Your task to perform on an android device: Open Google Chrome and open the bookmarks view Image 0: 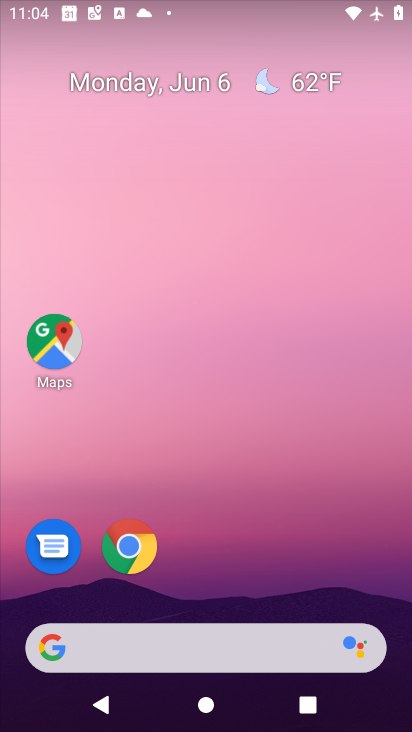
Step 0: click (130, 549)
Your task to perform on an android device: Open Google Chrome and open the bookmarks view Image 1: 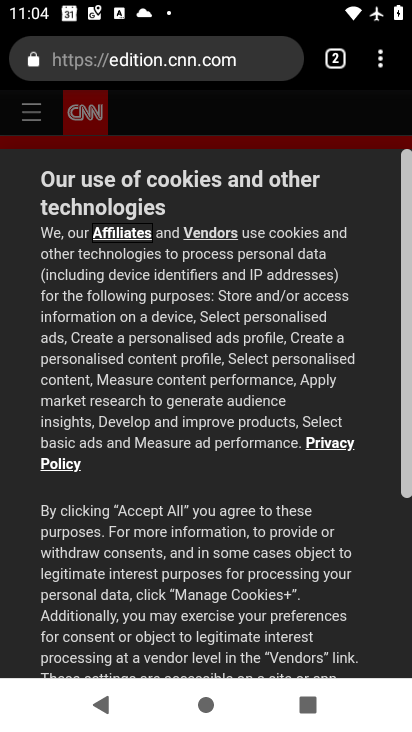
Step 1: click (382, 65)
Your task to perform on an android device: Open Google Chrome and open the bookmarks view Image 2: 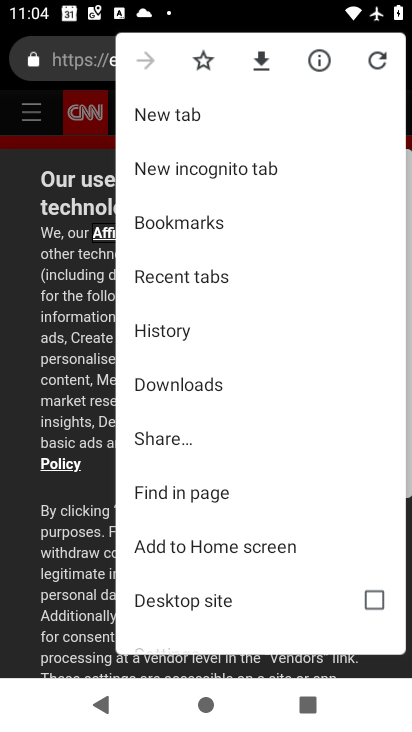
Step 2: click (170, 219)
Your task to perform on an android device: Open Google Chrome and open the bookmarks view Image 3: 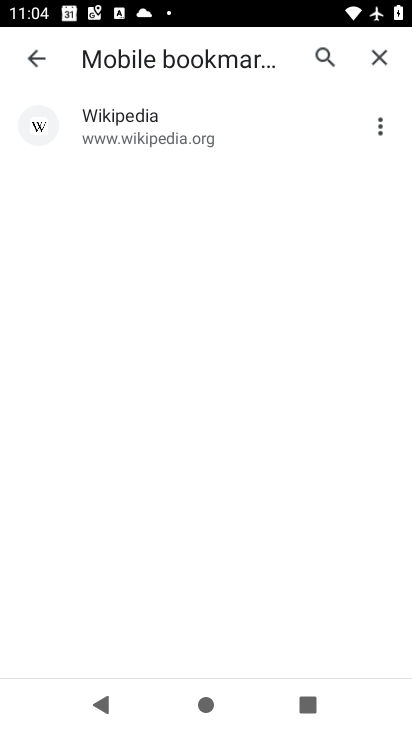
Step 3: task complete